Your task to perform on an android device: turn on improve location accuracy Image 0: 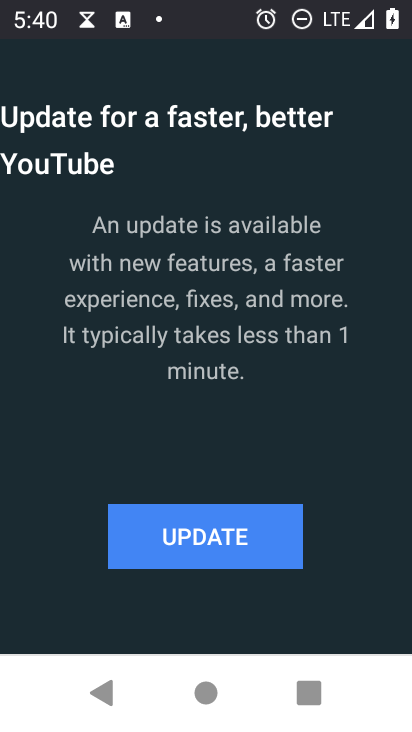
Step 0: press home button
Your task to perform on an android device: turn on improve location accuracy Image 1: 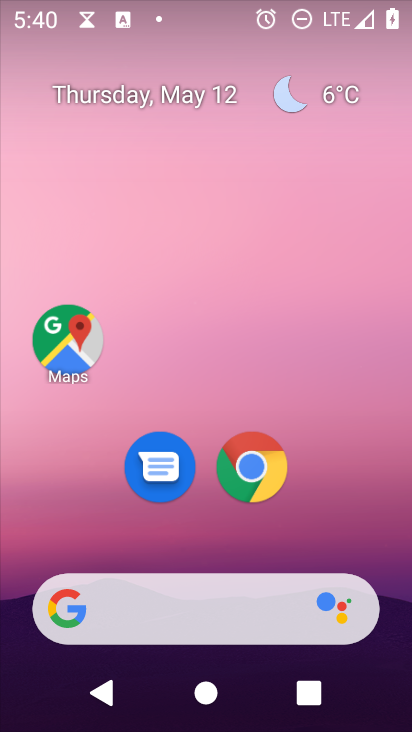
Step 1: drag from (322, 624) to (328, 0)
Your task to perform on an android device: turn on improve location accuracy Image 2: 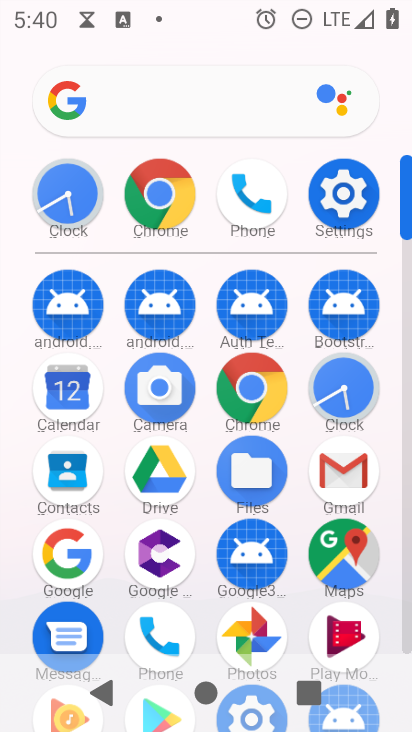
Step 2: click (338, 222)
Your task to perform on an android device: turn on improve location accuracy Image 3: 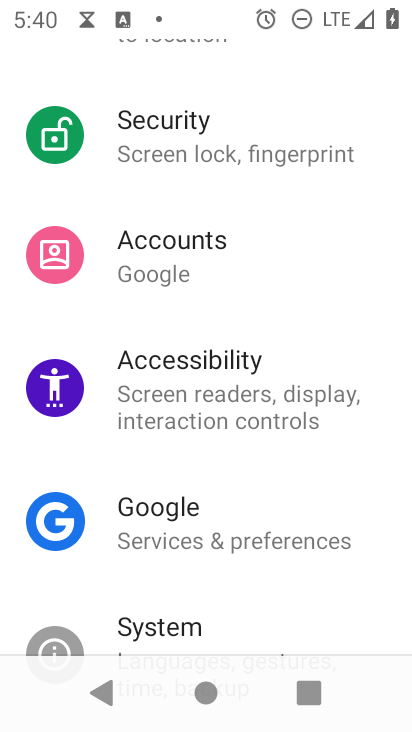
Step 3: drag from (252, 645) to (299, 200)
Your task to perform on an android device: turn on improve location accuracy Image 4: 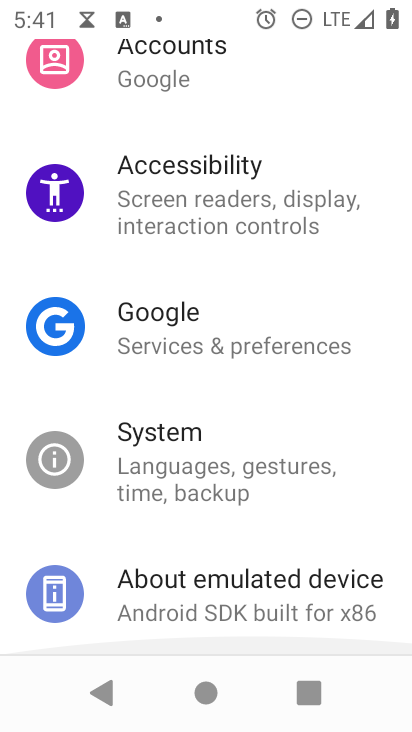
Step 4: drag from (288, 126) to (320, 627)
Your task to perform on an android device: turn on improve location accuracy Image 5: 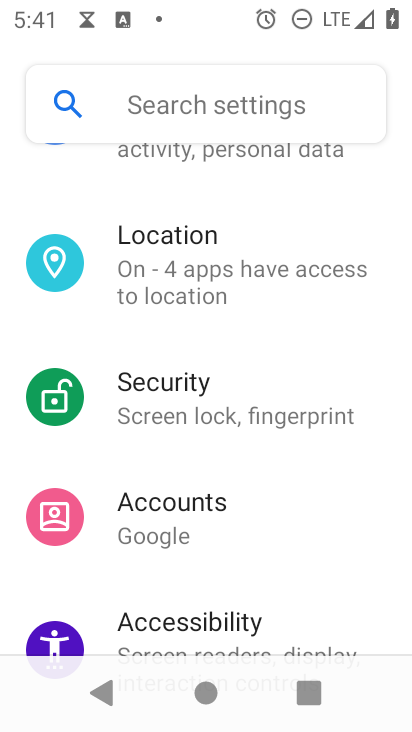
Step 5: click (228, 267)
Your task to perform on an android device: turn on improve location accuracy Image 6: 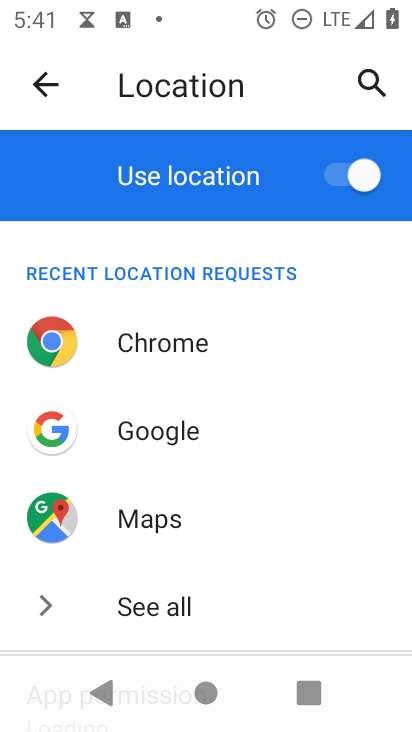
Step 6: drag from (236, 622) to (252, 62)
Your task to perform on an android device: turn on improve location accuracy Image 7: 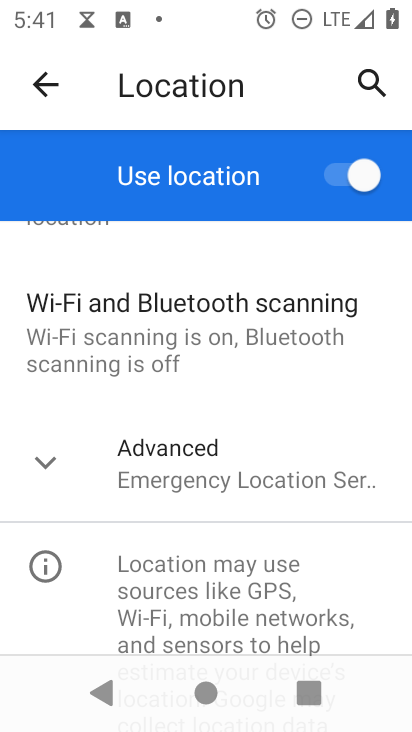
Step 7: click (278, 472)
Your task to perform on an android device: turn on improve location accuracy Image 8: 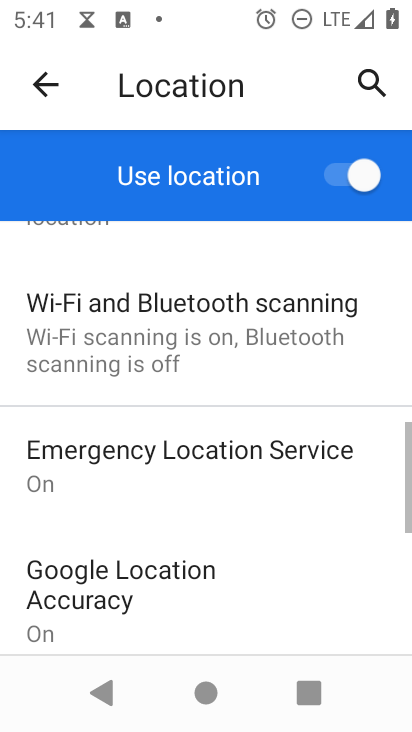
Step 8: task complete